Your task to perform on an android device: Open wifi settings Image 0: 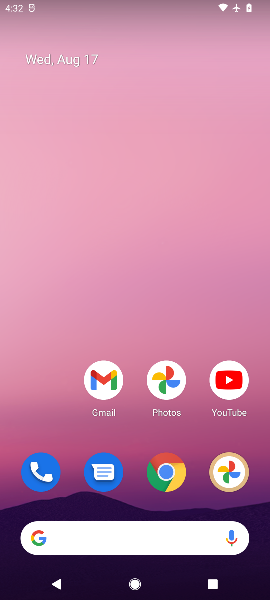
Step 0: drag from (142, 501) to (169, 83)
Your task to perform on an android device: Open wifi settings Image 1: 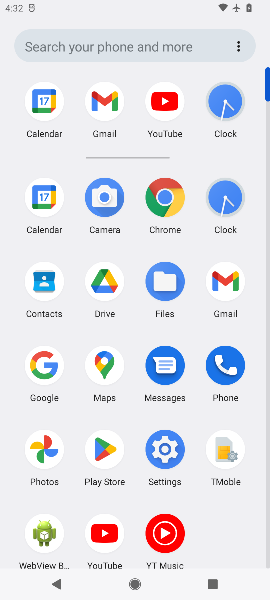
Step 1: click (170, 456)
Your task to perform on an android device: Open wifi settings Image 2: 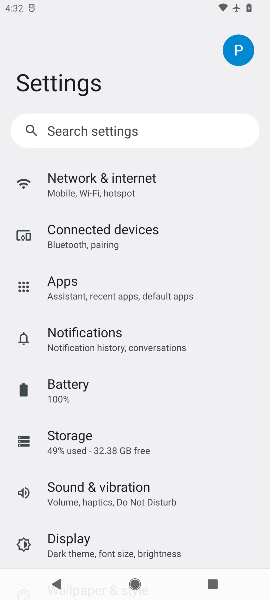
Step 2: click (121, 183)
Your task to perform on an android device: Open wifi settings Image 3: 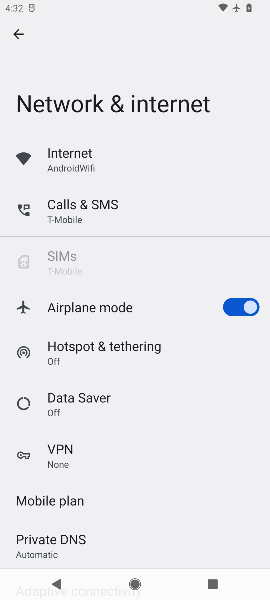
Step 3: click (89, 163)
Your task to perform on an android device: Open wifi settings Image 4: 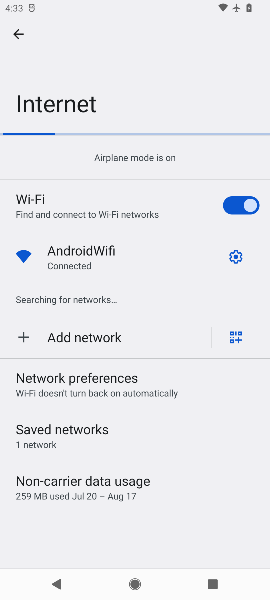
Step 4: task complete